Your task to perform on an android device: turn off improve location accuracy Image 0: 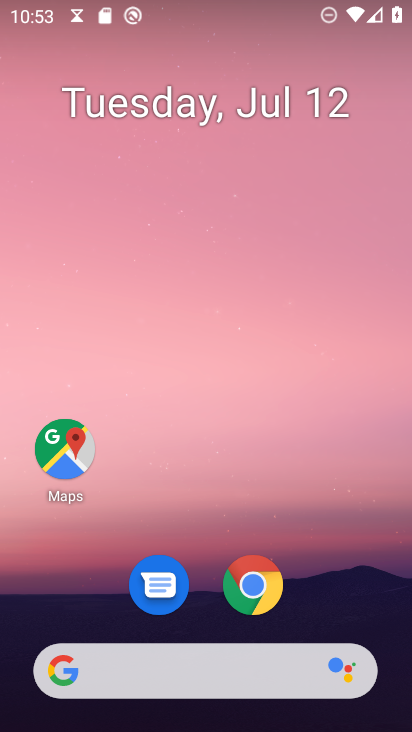
Step 0: drag from (164, 684) to (141, 20)
Your task to perform on an android device: turn off improve location accuracy Image 1: 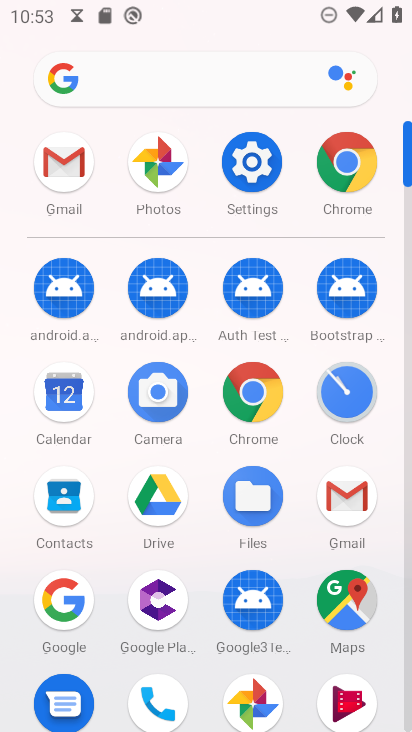
Step 1: click (243, 163)
Your task to perform on an android device: turn off improve location accuracy Image 2: 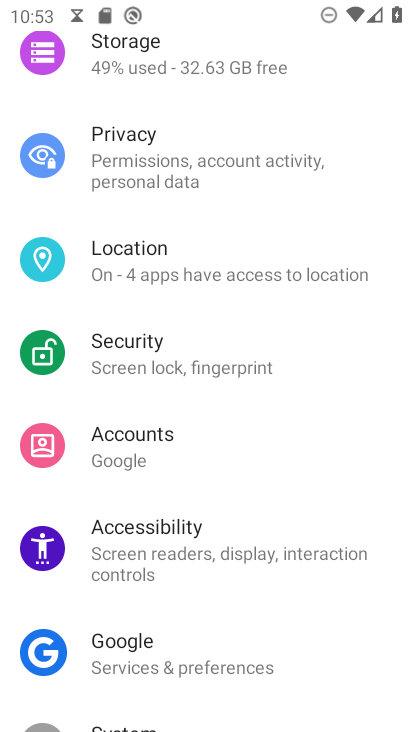
Step 2: click (146, 268)
Your task to perform on an android device: turn off improve location accuracy Image 3: 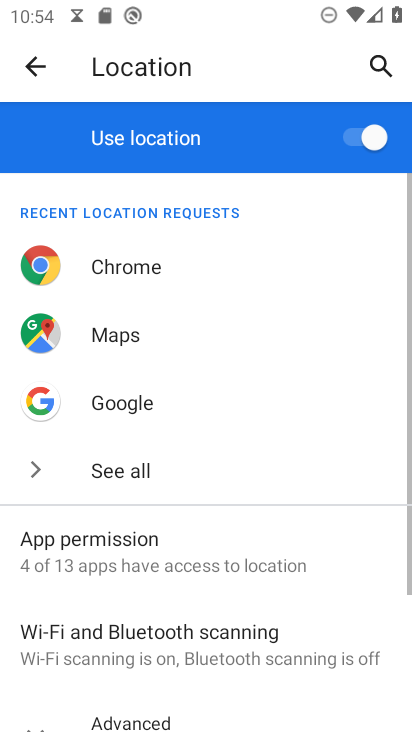
Step 3: drag from (242, 607) to (259, 274)
Your task to perform on an android device: turn off improve location accuracy Image 4: 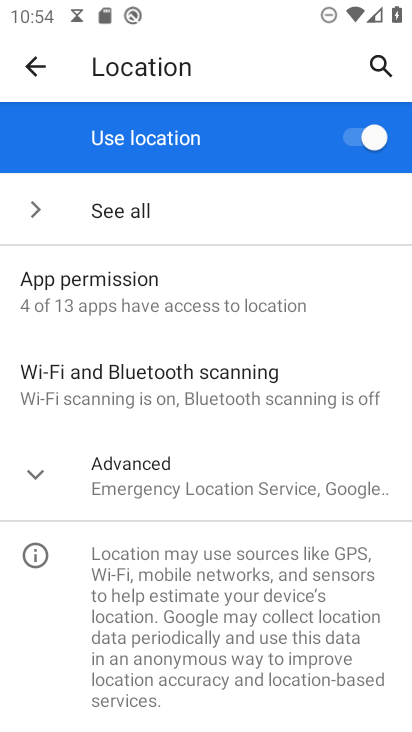
Step 4: click (158, 489)
Your task to perform on an android device: turn off improve location accuracy Image 5: 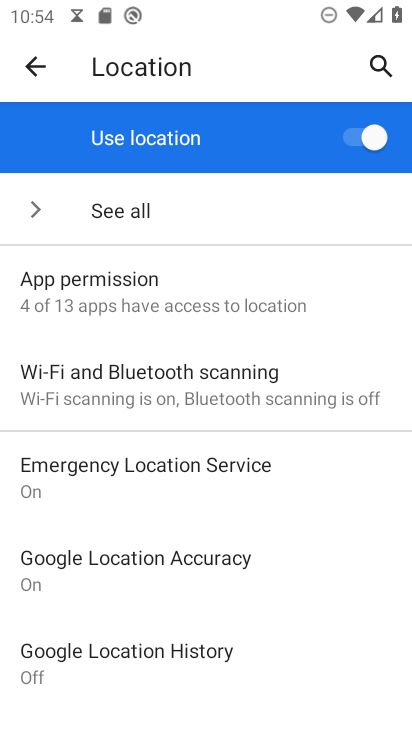
Step 5: click (191, 569)
Your task to perform on an android device: turn off improve location accuracy Image 6: 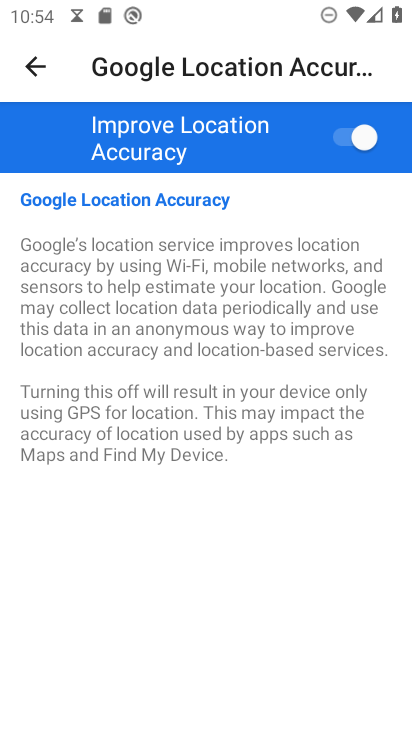
Step 6: click (340, 141)
Your task to perform on an android device: turn off improve location accuracy Image 7: 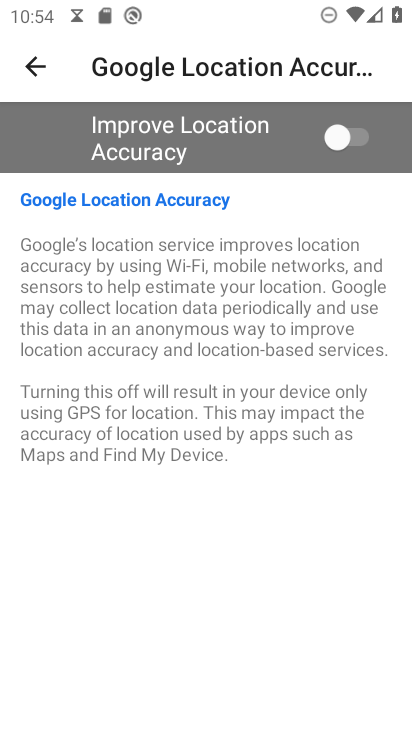
Step 7: task complete